Your task to perform on an android device: Go to battery settings Image 0: 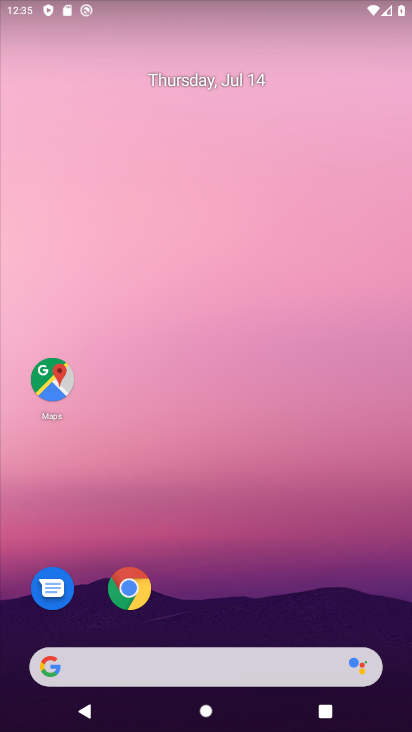
Step 0: drag from (243, 506) to (196, 201)
Your task to perform on an android device: Go to battery settings Image 1: 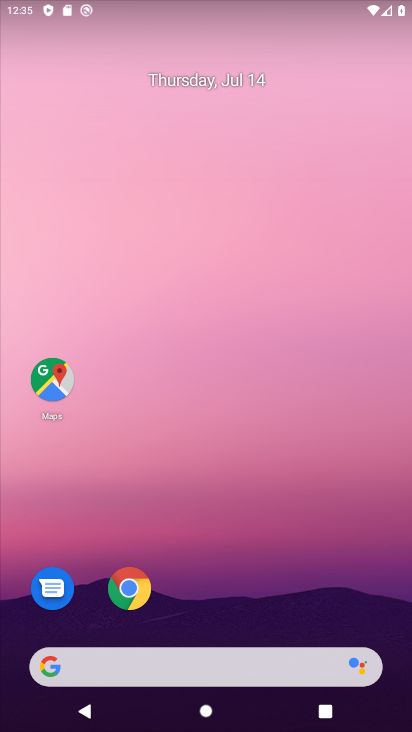
Step 1: drag from (251, 721) to (240, 93)
Your task to perform on an android device: Go to battery settings Image 2: 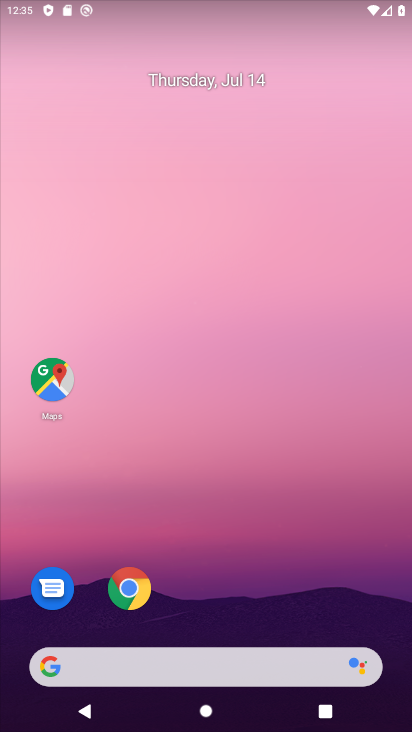
Step 2: drag from (244, 715) to (161, 149)
Your task to perform on an android device: Go to battery settings Image 3: 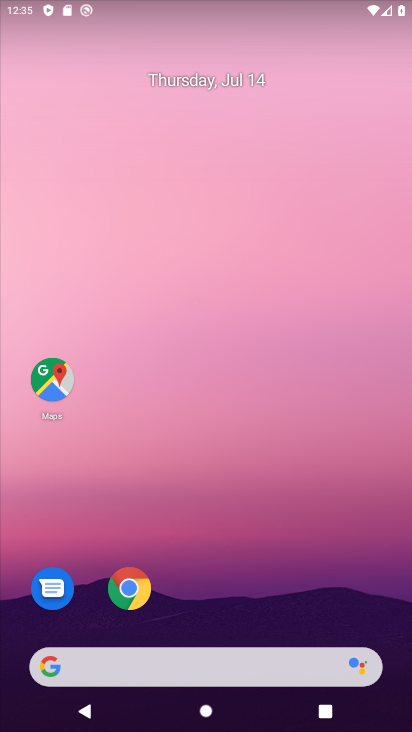
Step 3: drag from (236, 534) to (204, 108)
Your task to perform on an android device: Go to battery settings Image 4: 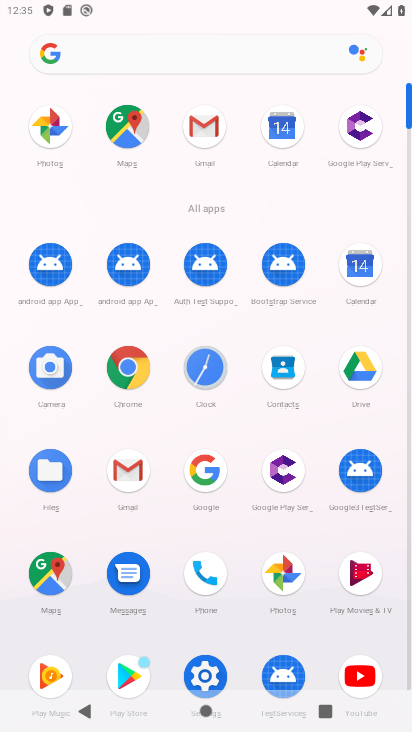
Step 4: click (206, 664)
Your task to perform on an android device: Go to battery settings Image 5: 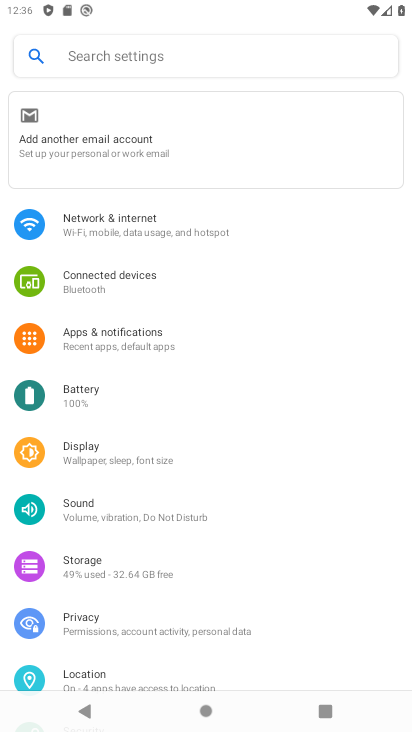
Step 5: click (146, 387)
Your task to perform on an android device: Go to battery settings Image 6: 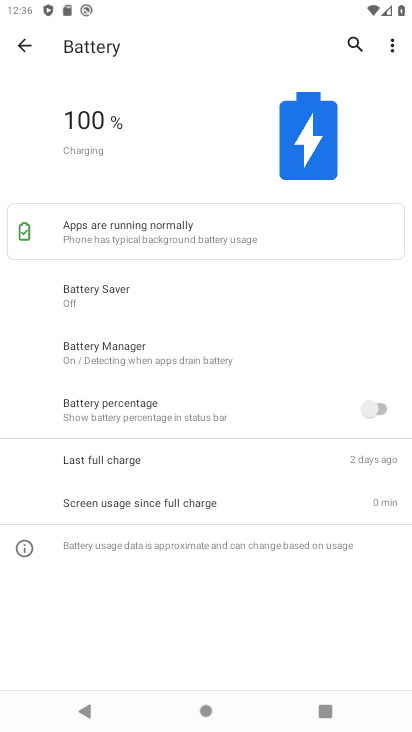
Step 6: task complete